Your task to perform on an android device: move an email to a new category in the gmail app Image 0: 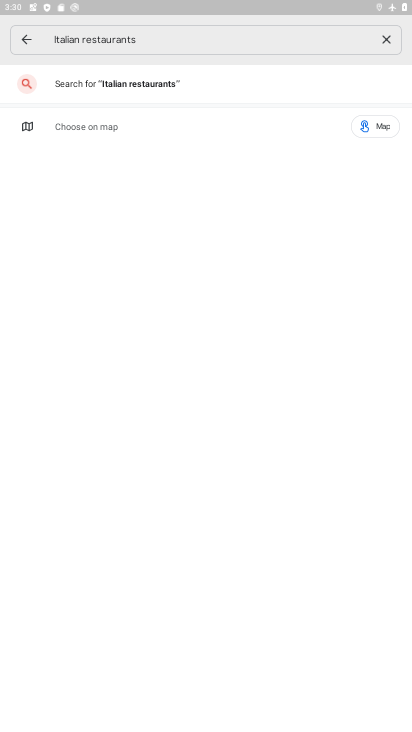
Step 0: press home button
Your task to perform on an android device: move an email to a new category in the gmail app Image 1: 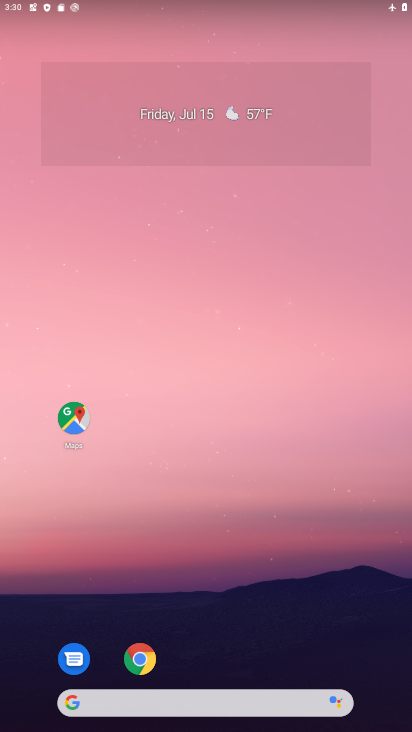
Step 1: drag from (8, 664) to (373, 29)
Your task to perform on an android device: move an email to a new category in the gmail app Image 2: 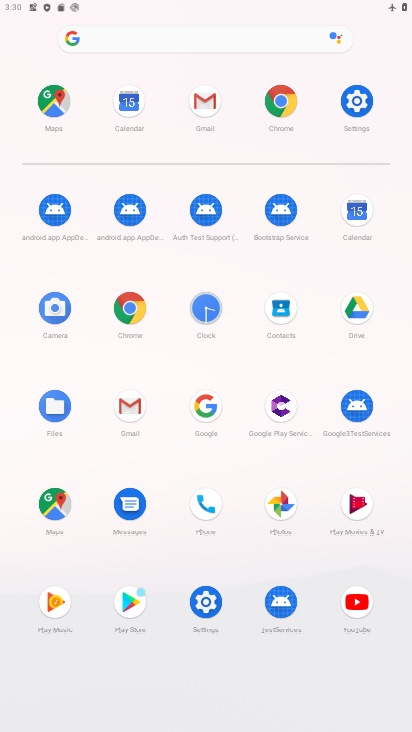
Step 2: click (127, 422)
Your task to perform on an android device: move an email to a new category in the gmail app Image 3: 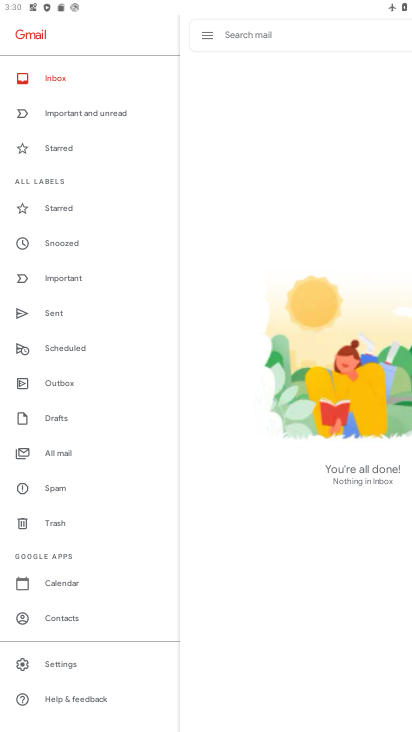
Step 3: click (66, 83)
Your task to perform on an android device: move an email to a new category in the gmail app Image 4: 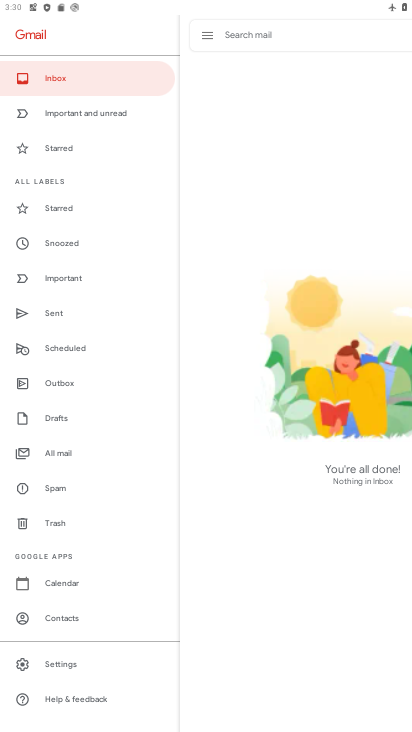
Step 4: task complete